Your task to perform on an android device: see creations saved in the google photos Image 0: 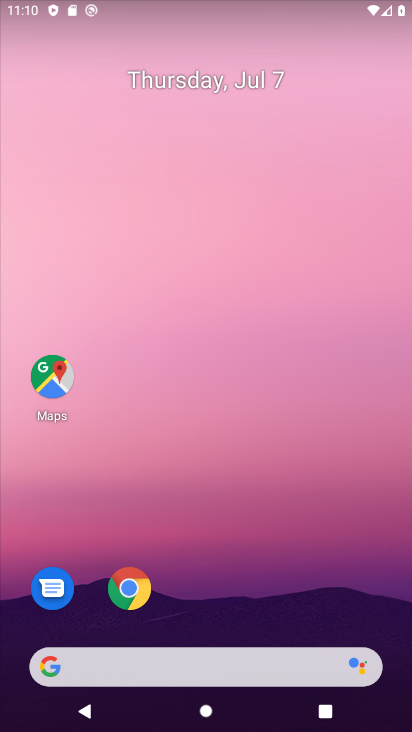
Step 0: drag from (215, 612) to (229, 66)
Your task to perform on an android device: see creations saved in the google photos Image 1: 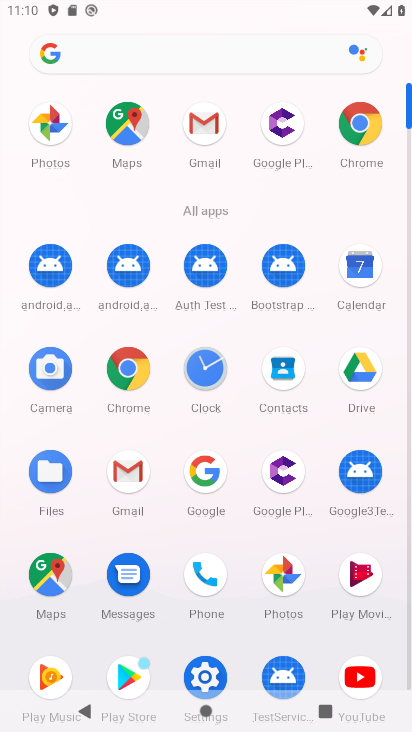
Step 1: click (280, 572)
Your task to perform on an android device: see creations saved in the google photos Image 2: 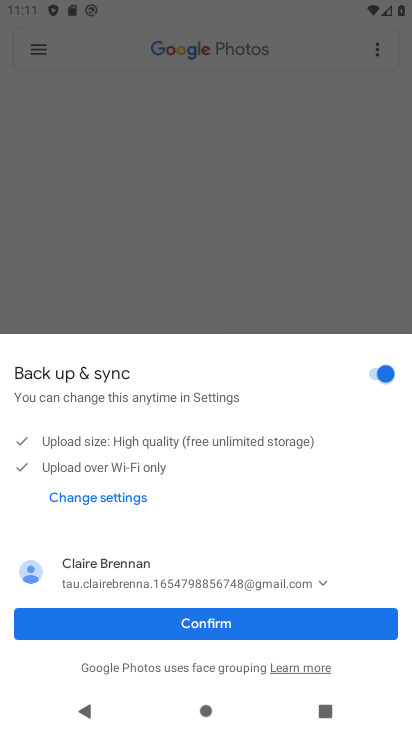
Step 2: click (199, 626)
Your task to perform on an android device: see creations saved in the google photos Image 3: 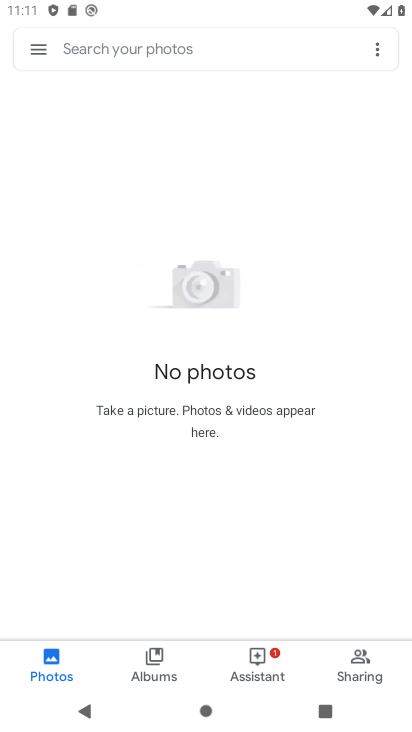
Step 3: click (182, 44)
Your task to perform on an android device: see creations saved in the google photos Image 4: 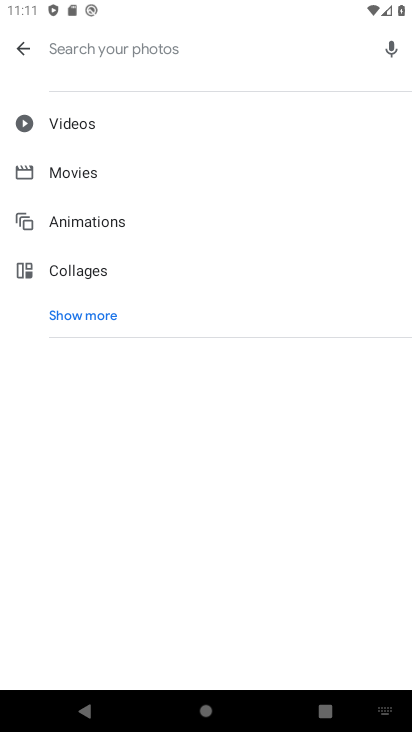
Step 4: click (76, 318)
Your task to perform on an android device: see creations saved in the google photos Image 5: 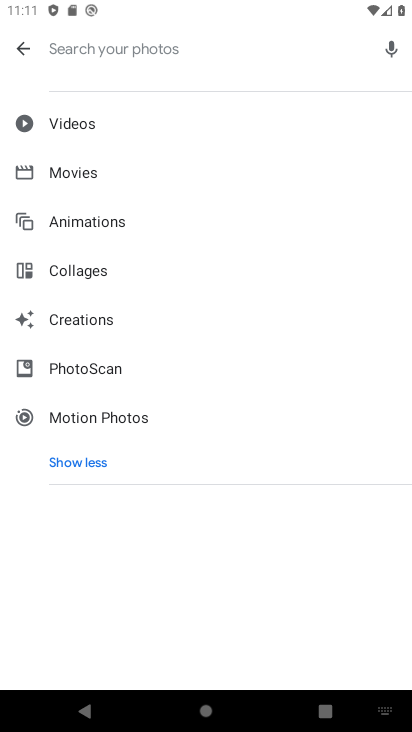
Step 5: click (76, 317)
Your task to perform on an android device: see creations saved in the google photos Image 6: 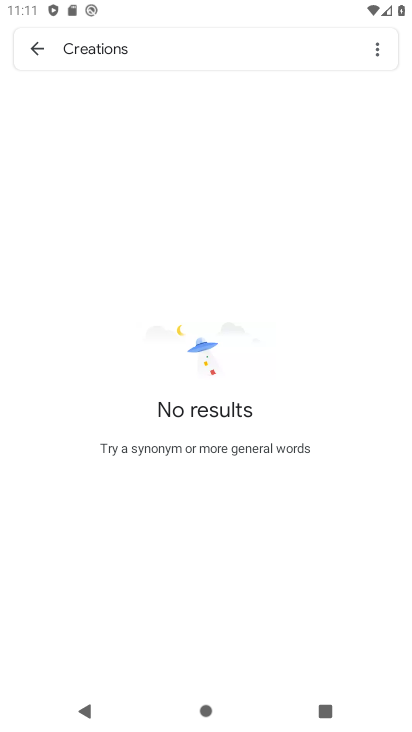
Step 6: task complete